Your task to perform on an android device: turn on bluetooth scan Image 0: 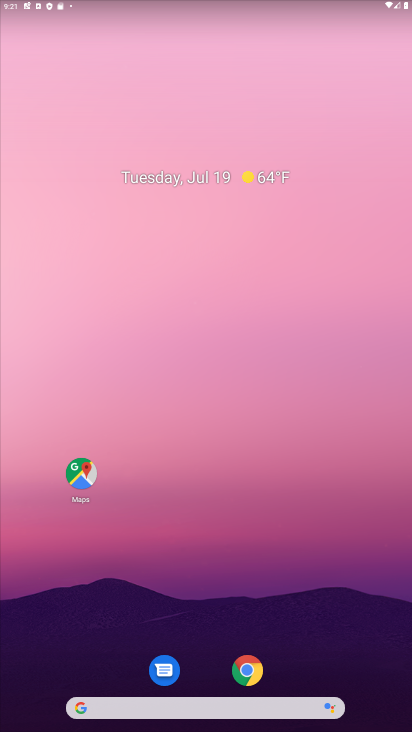
Step 0: drag from (214, 731) to (210, 106)
Your task to perform on an android device: turn on bluetooth scan Image 1: 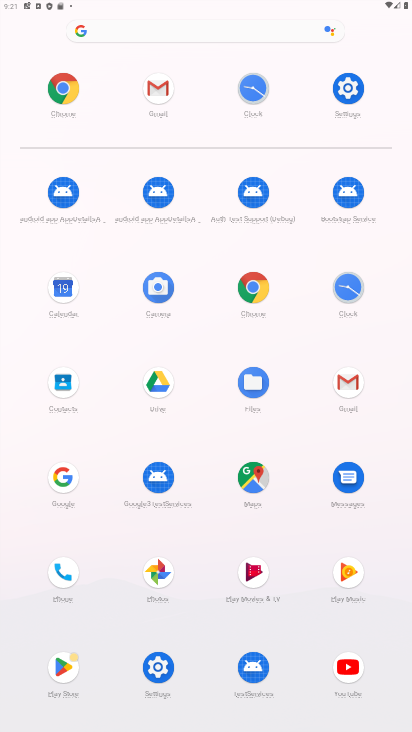
Step 1: click (352, 80)
Your task to perform on an android device: turn on bluetooth scan Image 2: 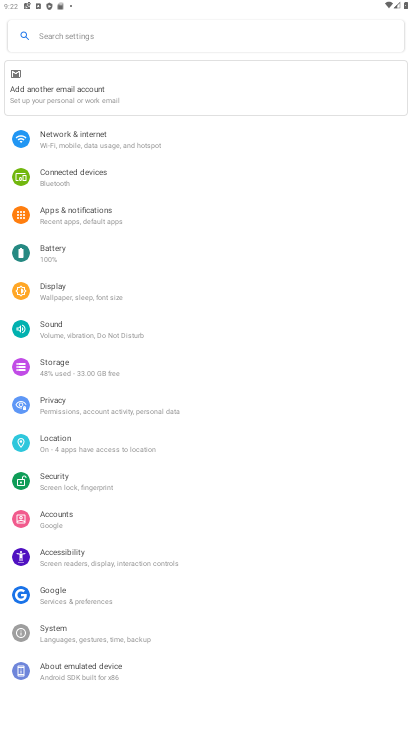
Step 2: click (62, 448)
Your task to perform on an android device: turn on bluetooth scan Image 3: 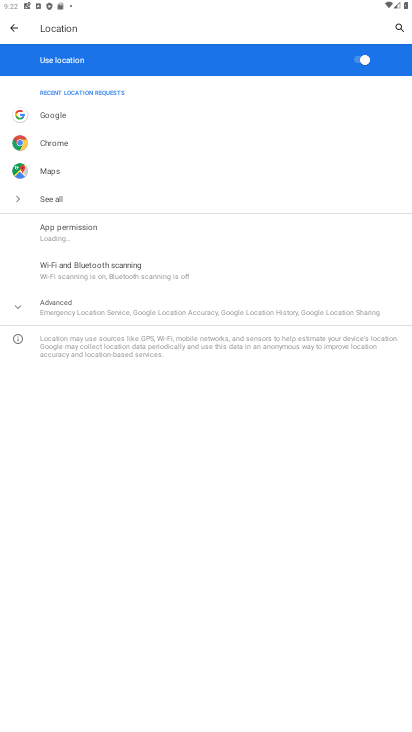
Step 3: click (154, 270)
Your task to perform on an android device: turn on bluetooth scan Image 4: 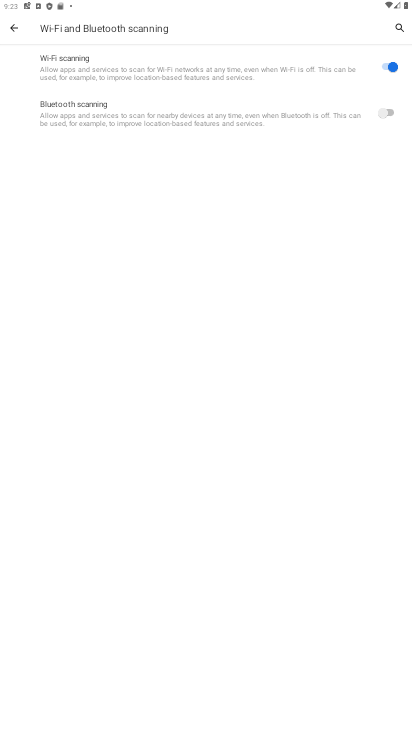
Step 4: click (390, 110)
Your task to perform on an android device: turn on bluetooth scan Image 5: 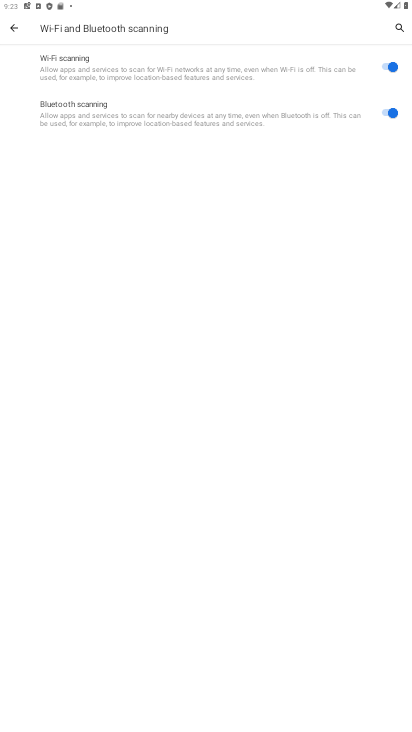
Step 5: task complete